Your task to perform on an android device: change timer sound Image 0: 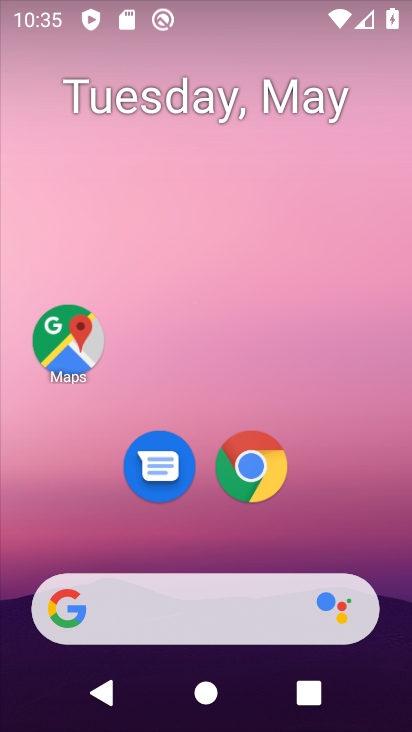
Step 0: drag from (206, 571) to (208, 181)
Your task to perform on an android device: change timer sound Image 1: 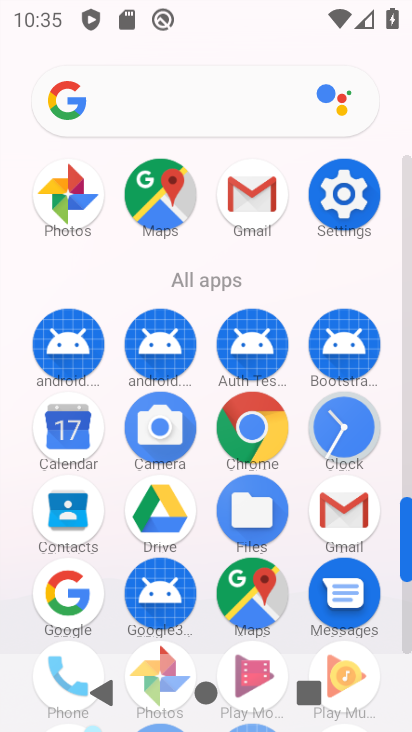
Step 1: click (355, 441)
Your task to perform on an android device: change timer sound Image 2: 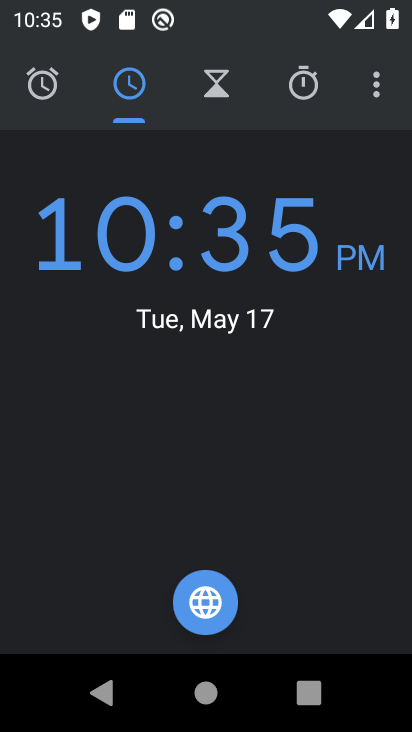
Step 2: click (378, 86)
Your task to perform on an android device: change timer sound Image 3: 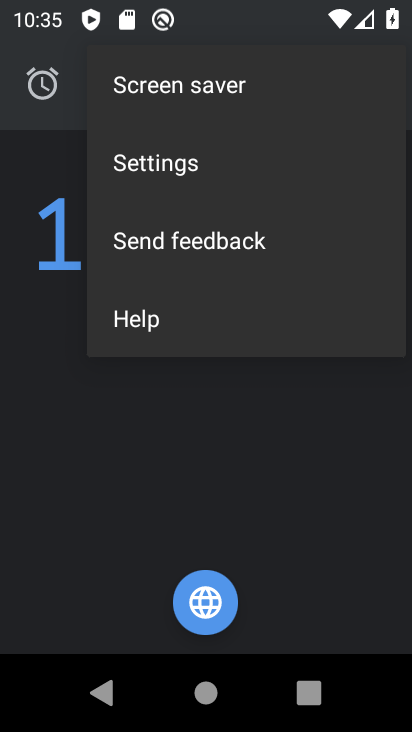
Step 3: click (185, 154)
Your task to perform on an android device: change timer sound Image 4: 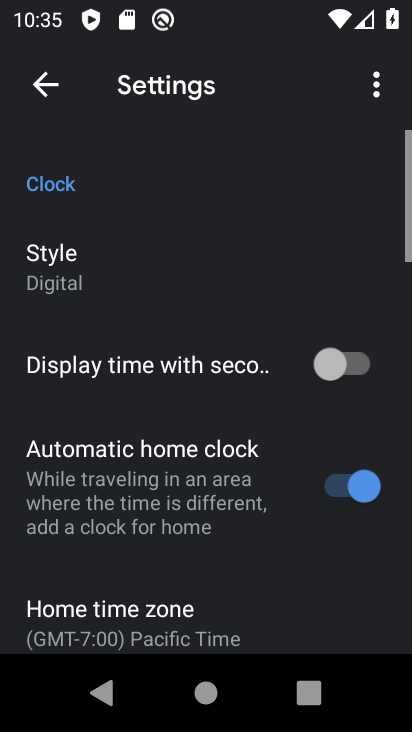
Step 4: drag from (199, 630) to (199, 250)
Your task to perform on an android device: change timer sound Image 5: 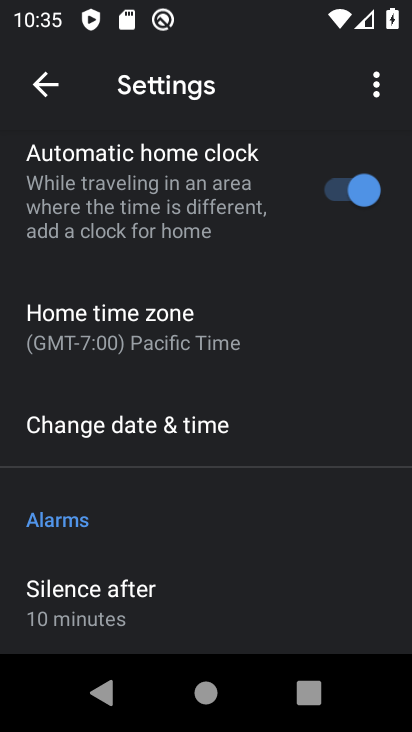
Step 5: drag from (152, 624) to (179, 300)
Your task to perform on an android device: change timer sound Image 6: 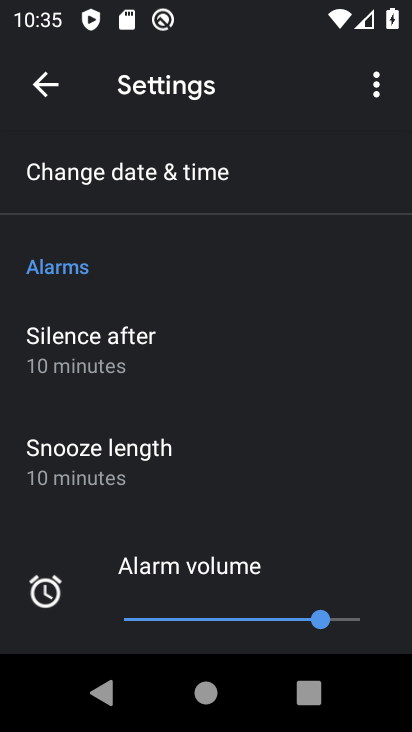
Step 6: drag from (129, 483) to (134, 309)
Your task to perform on an android device: change timer sound Image 7: 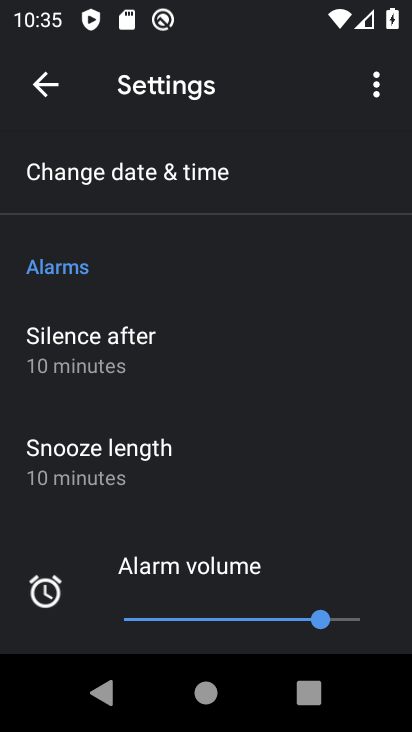
Step 7: drag from (72, 638) to (118, 245)
Your task to perform on an android device: change timer sound Image 8: 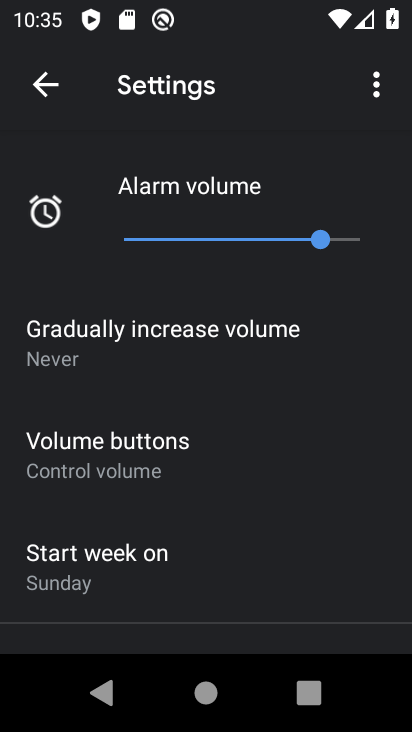
Step 8: drag from (140, 600) to (171, 306)
Your task to perform on an android device: change timer sound Image 9: 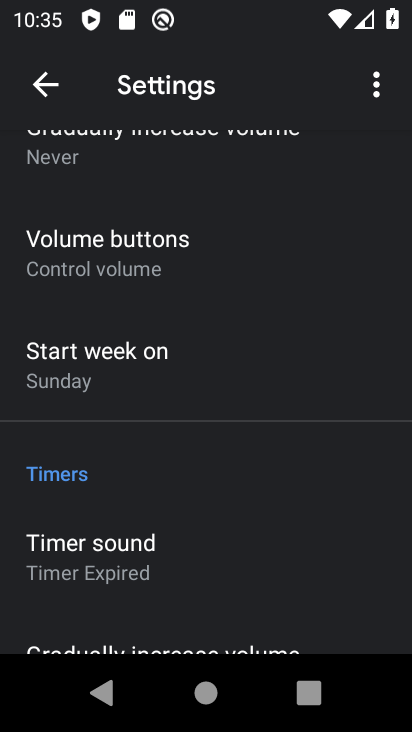
Step 9: click (116, 559)
Your task to perform on an android device: change timer sound Image 10: 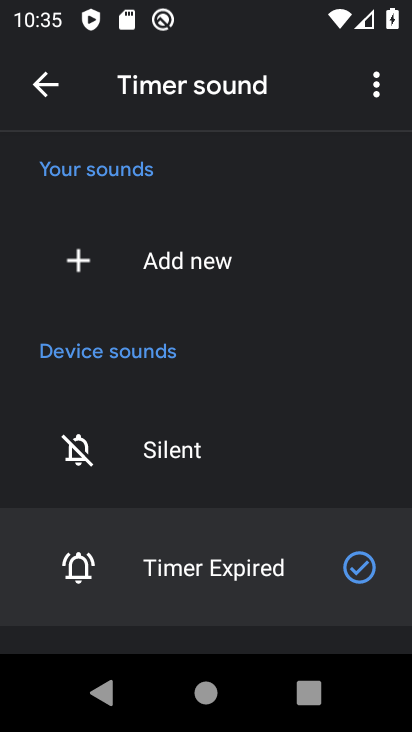
Step 10: drag from (193, 649) to (231, 313)
Your task to perform on an android device: change timer sound Image 11: 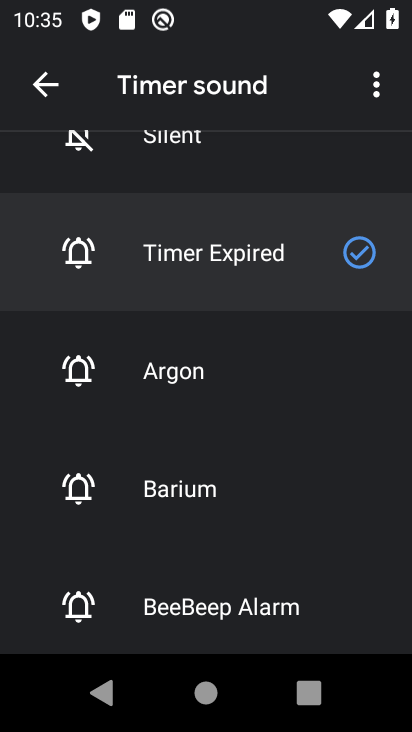
Step 11: drag from (254, 405) to (281, 226)
Your task to perform on an android device: change timer sound Image 12: 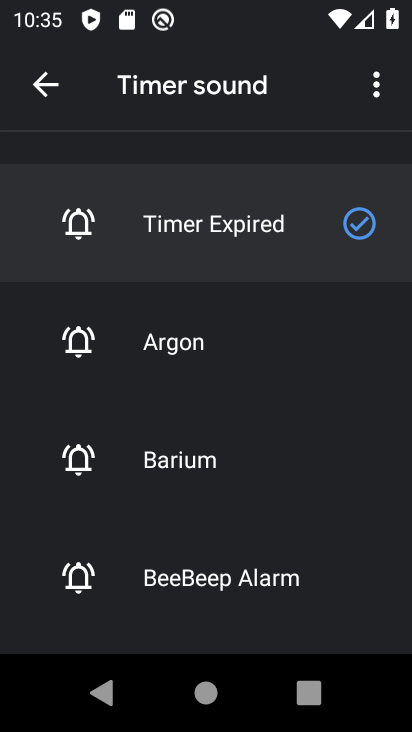
Step 12: click (175, 340)
Your task to perform on an android device: change timer sound Image 13: 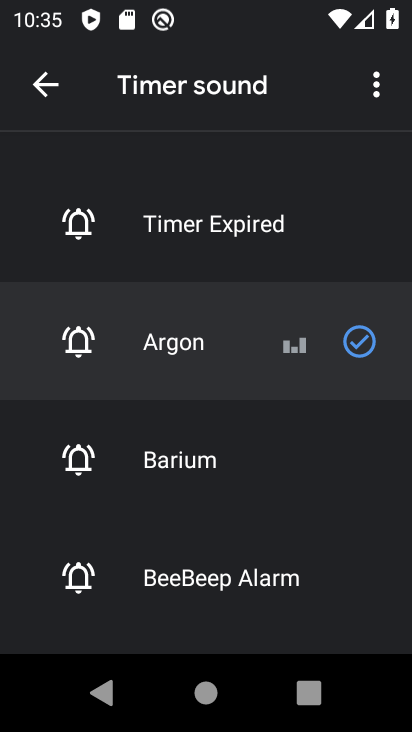
Step 13: task complete